Your task to perform on an android device: empty trash in google photos Image 0: 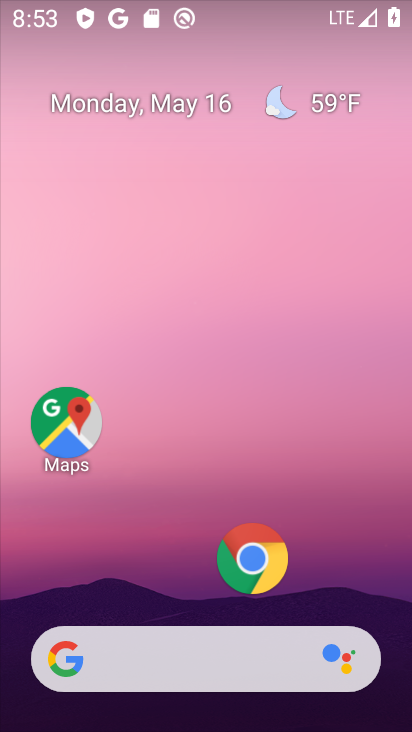
Step 0: drag from (164, 597) to (223, 86)
Your task to perform on an android device: empty trash in google photos Image 1: 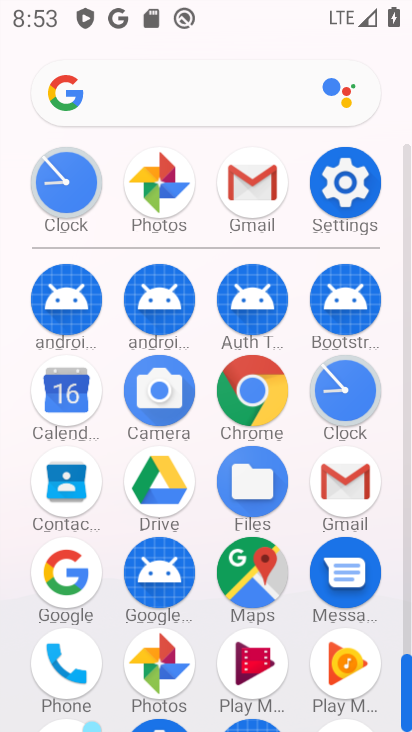
Step 1: click (163, 680)
Your task to perform on an android device: empty trash in google photos Image 2: 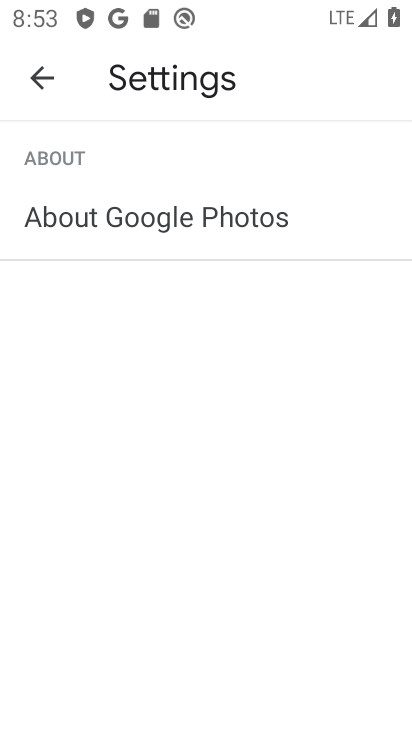
Step 2: click (43, 74)
Your task to perform on an android device: empty trash in google photos Image 3: 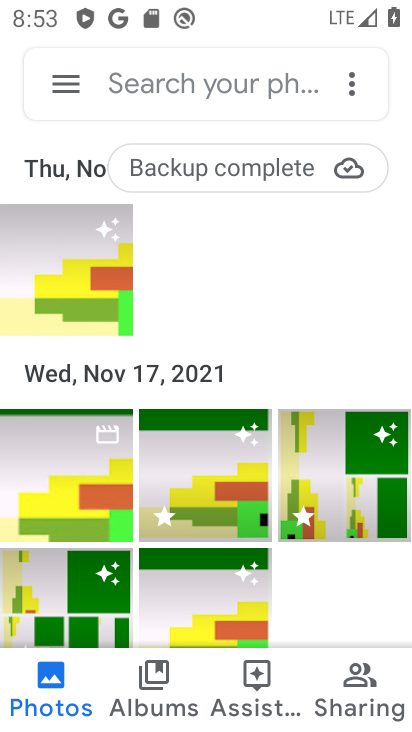
Step 3: click (59, 82)
Your task to perform on an android device: empty trash in google photos Image 4: 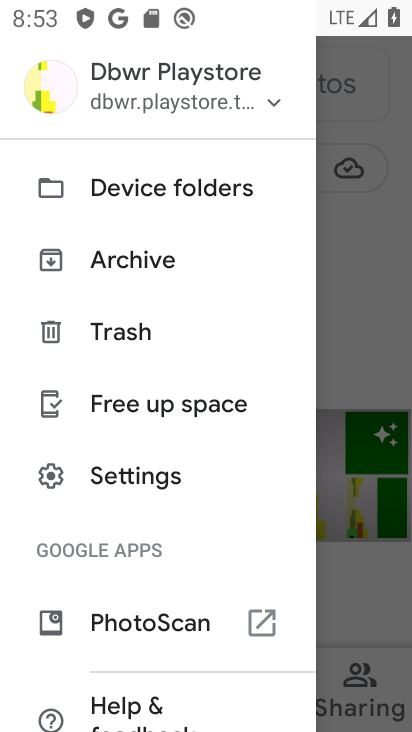
Step 4: click (109, 334)
Your task to perform on an android device: empty trash in google photos Image 5: 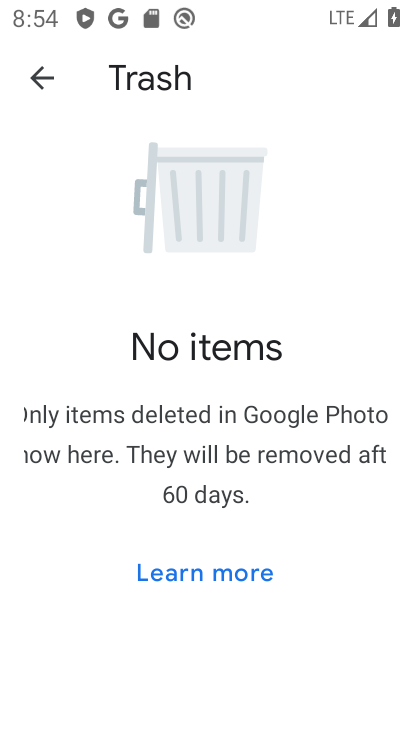
Step 5: task complete